Your task to perform on an android device: Set the phone to "Do not disturb". Image 0: 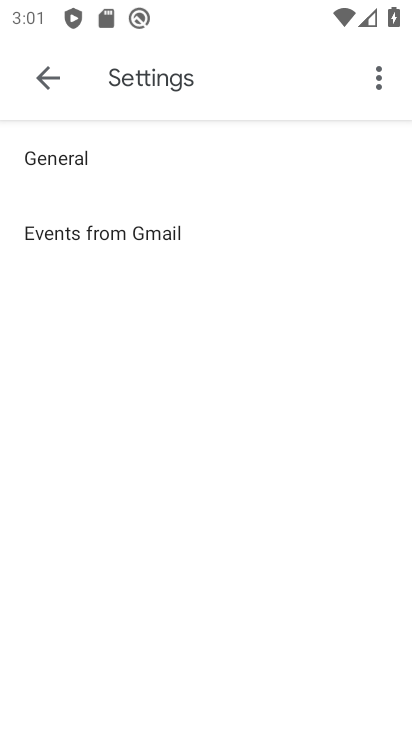
Step 0: press home button
Your task to perform on an android device: Set the phone to "Do not disturb". Image 1: 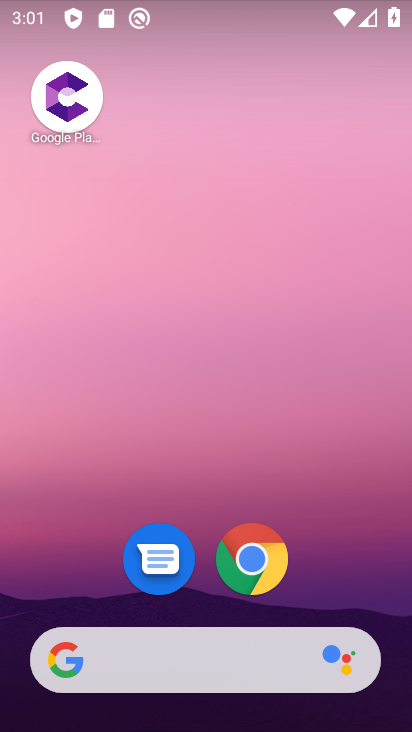
Step 1: drag from (71, 618) to (206, 40)
Your task to perform on an android device: Set the phone to "Do not disturb". Image 2: 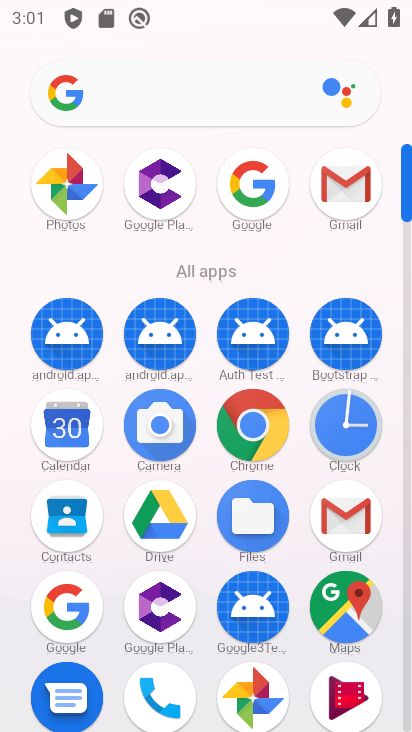
Step 2: drag from (186, 625) to (248, 375)
Your task to perform on an android device: Set the phone to "Do not disturb". Image 3: 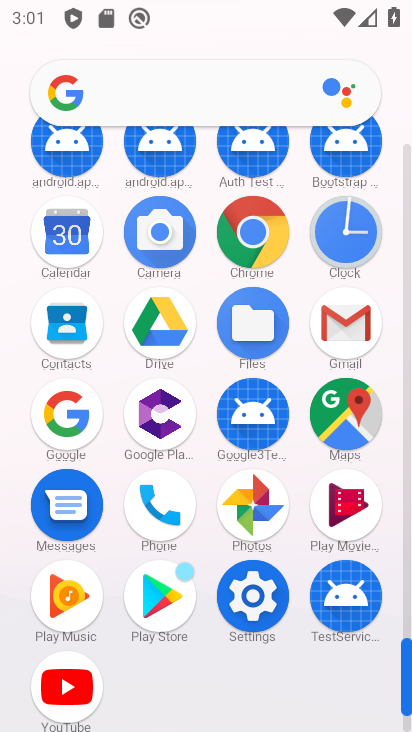
Step 3: click (256, 598)
Your task to perform on an android device: Set the phone to "Do not disturb". Image 4: 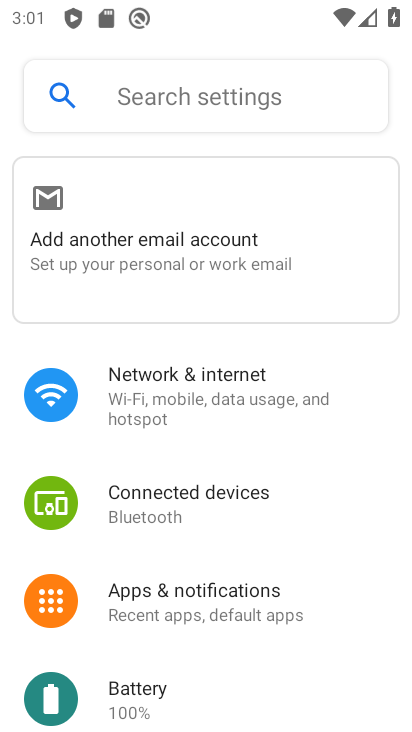
Step 4: drag from (199, 648) to (250, 419)
Your task to perform on an android device: Set the phone to "Do not disturb". Image 5: 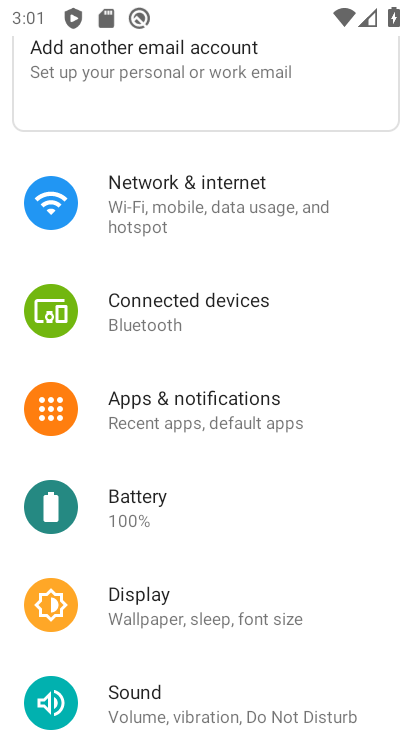
Step 5: click (238, 418)
Your task to perform on an android device: Set the phone to "Do not disturb". Image 6: 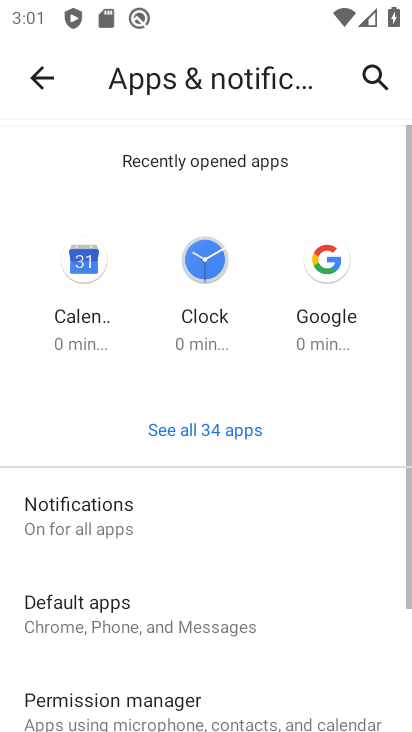
Step 6: drag from (178, 568) to (243, 171)
Your task to perform on an android device: Set the phone to "Do not disturb". Image 7: 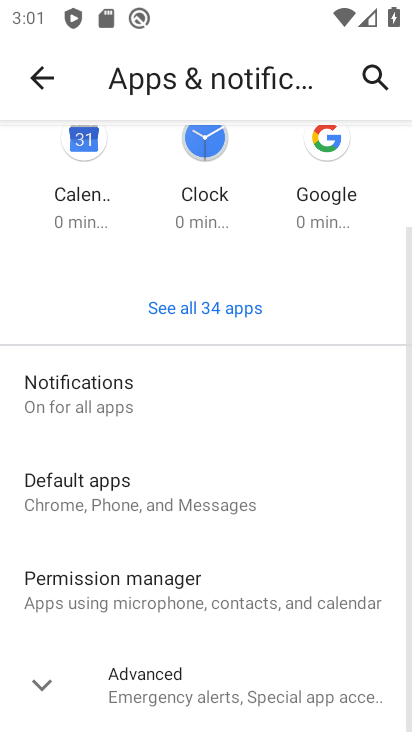
Step 7: click (95, 402)
Your task to perform on an android device: Set the phone to "Do not disturb". Image 8: 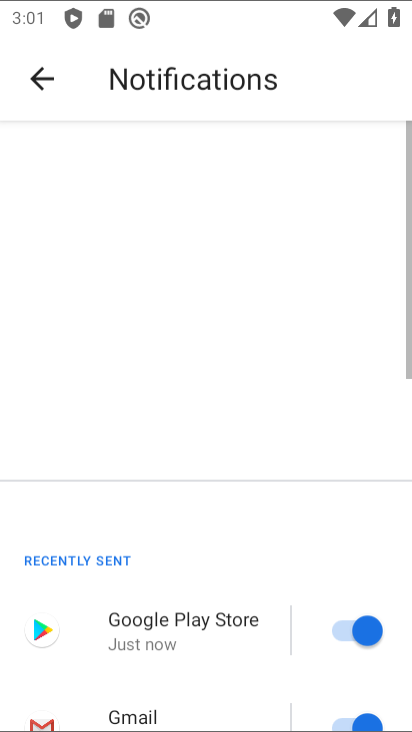
Step 8: drag from (122, 533) to (222, 21)
Your task to perform on an android device: Set the phone to "Do not disturb". Image 9: 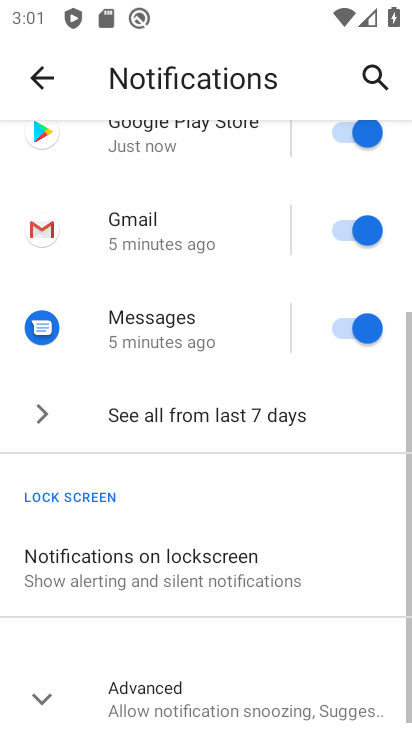
Step 9: drag from (139, 580) to (219, 139)
Your task to perform on an android device: Set the phone to "Do not disturb". Image 10: 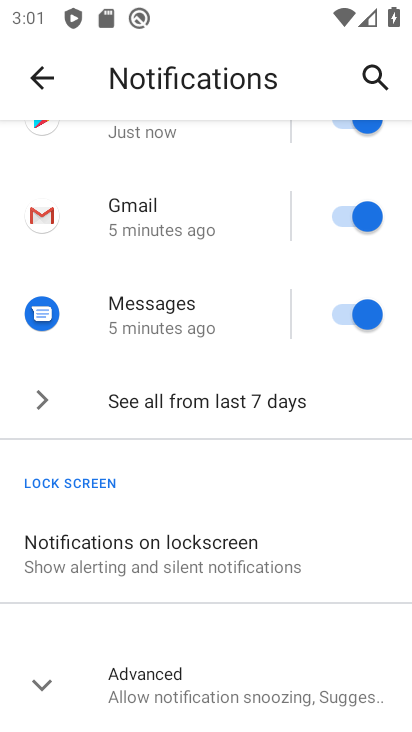
Step 10: drag from (174, 706) to (215, 487)
Your task to perform on an android device: Set the phone to "Do not disturb". Image 11: 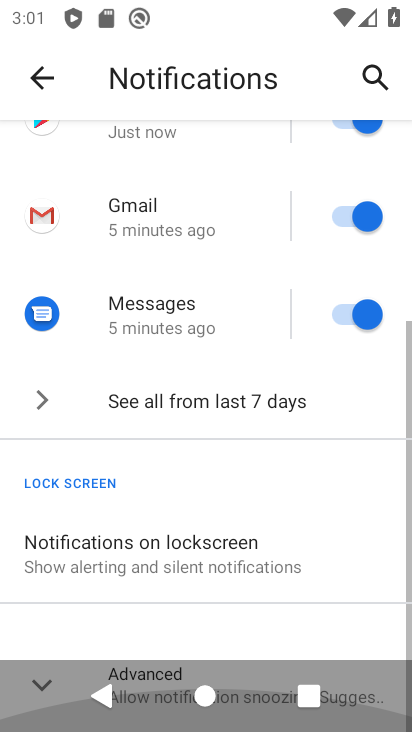
Step 11: click (222, 660)
Your task to perform on an android device: Set the phone to "Do not disturb". Image 12: 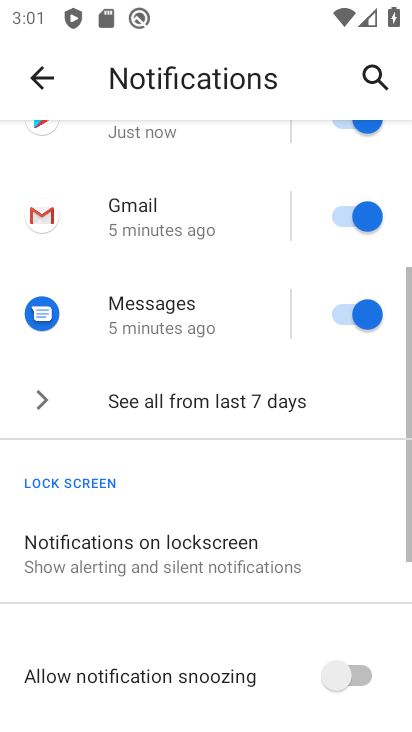
Step 12: drag from (184, 605) to (264, 200)
Your task to perform on an android device: Set the phone to "Do not disturb". Image 13: 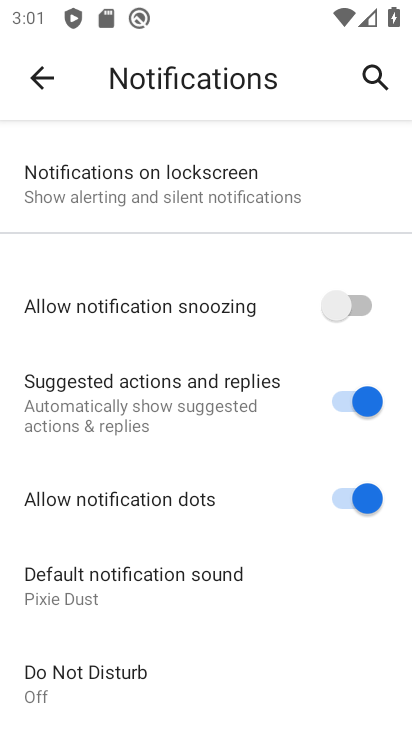
Step 13: click (138, 698)
Your task to perform on an android device: Set the phone to "Do not disturb". Image 14: 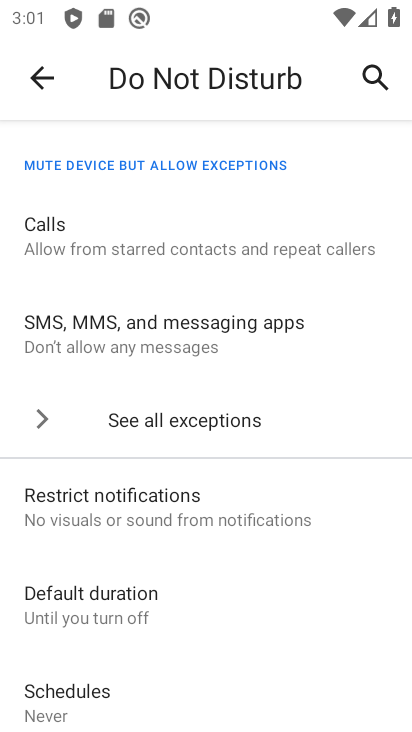
Step 14: drag from (49, 682) to (179, 234)
Your task to perform on an android device: Set the phone to "Do not disturb". Image 15: 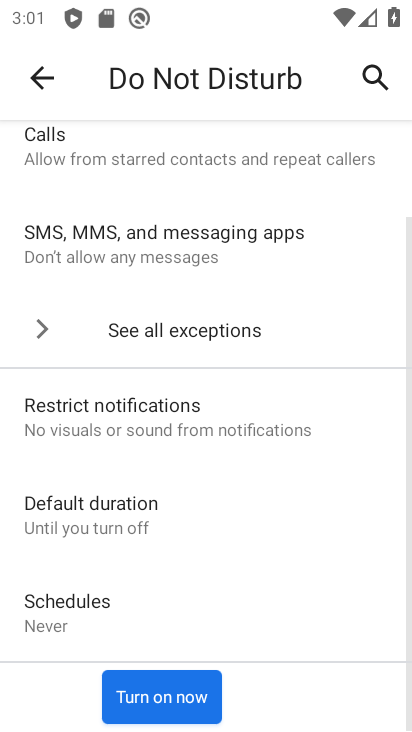
Step 15: click (141, 707)
Your task to perform on an android device: Set the phone to "Do not disturb". Image 16: 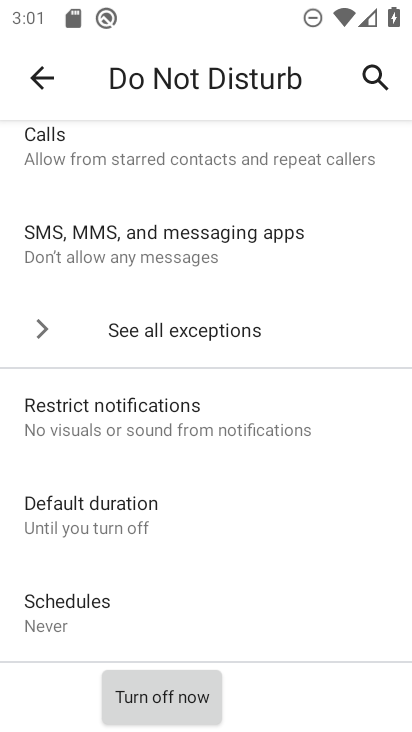
Step 16: task complete